Your task to perform on an android device: set an alarm Image 0: 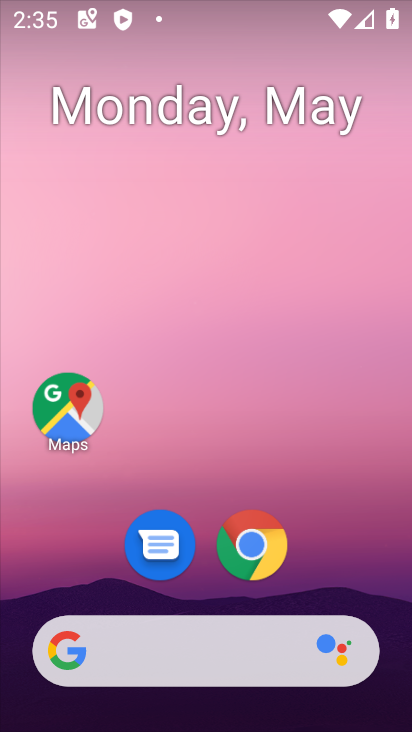
Step 0: drag from (285, 633) to (217, 229)
Your task to perform on an android device: set an alarm Image 1: 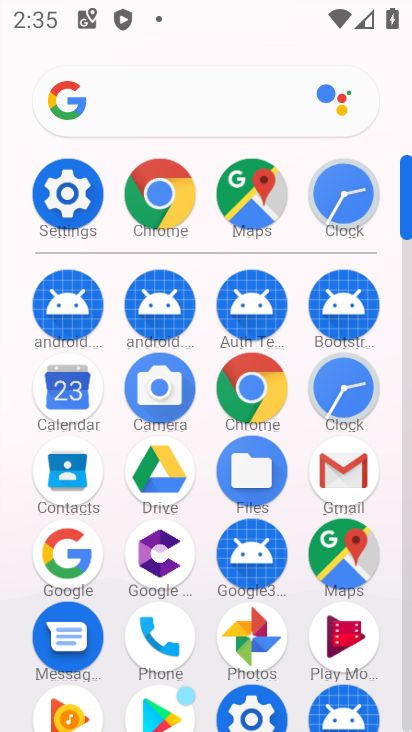
Step 1: click (71, 218)
Your task to perform on an android device: set an alarm Image 2: 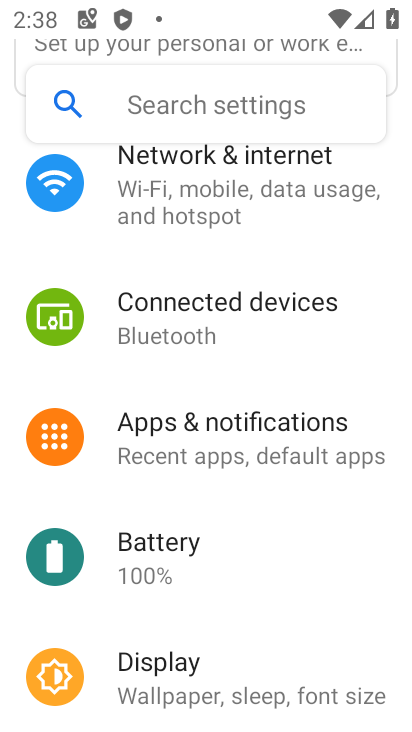
Step 2: press home button
Your task to perform on an android device: set an alarm Image 3: 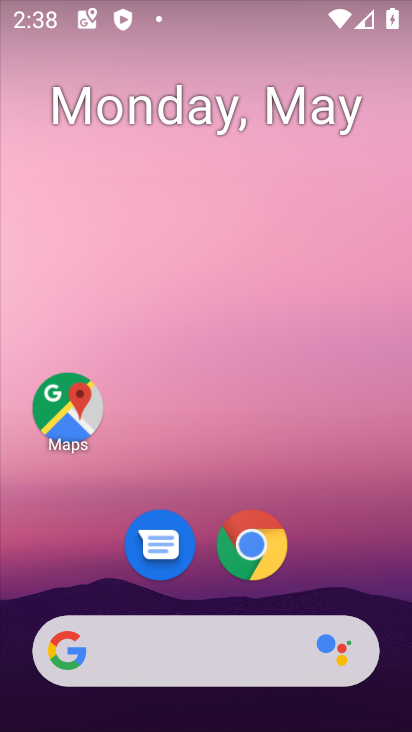
Step 3: drag from (263, 676) to (300, 8)
Your task to perform on an android device: set an alarm Image 4: 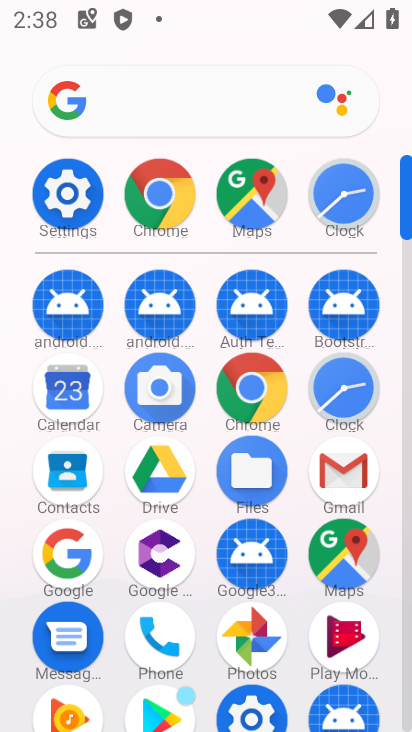
Step 4: click (332, 378)
Your task to perform on an android device: set an alarm Image 5: 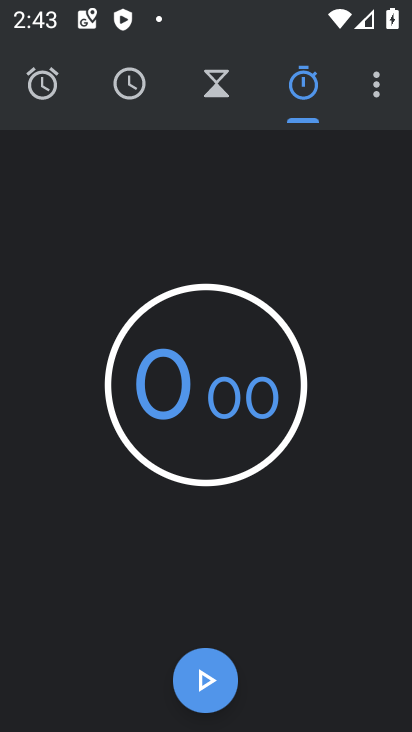
Step 5: click (39, 93)
Your task to perform on an android device: set an alarm Image 6: 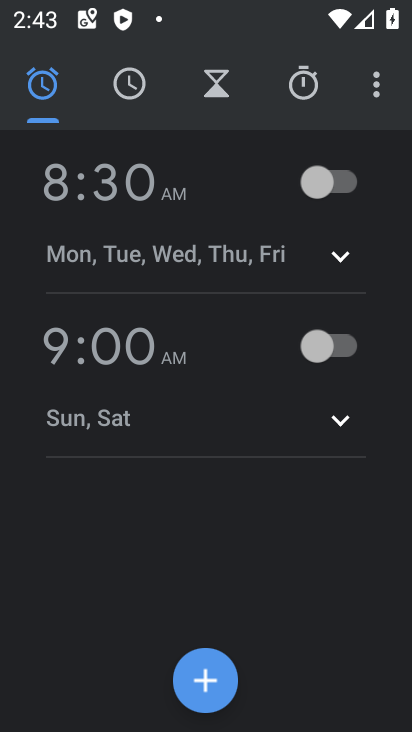
Step 6: click (227, 684)
Your task to perform on an android device: set an alarm Image 7: 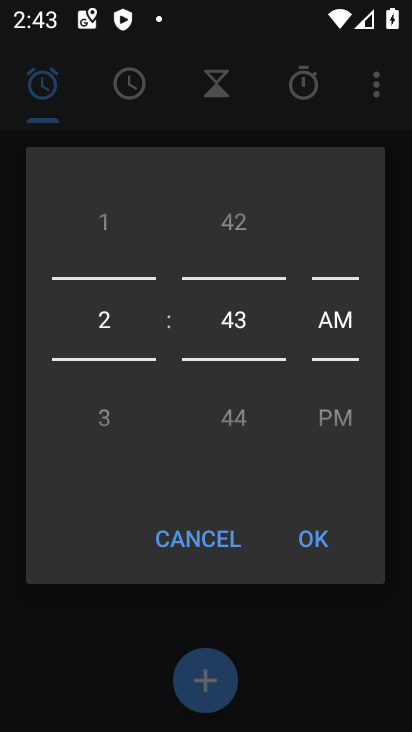
Step 7: click (313, 538)
Your task to perform on an android device: set an alarm Image 8: 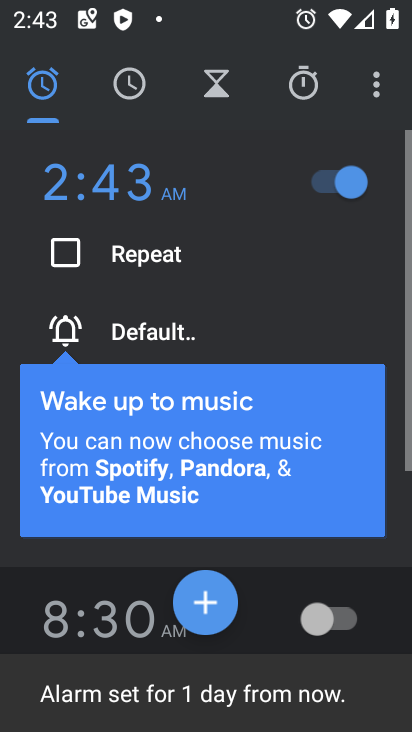
Step 8: task complete